Your task to perform on an android device: Search for the best-rated coffee table on Crate & Barrel Image 0: 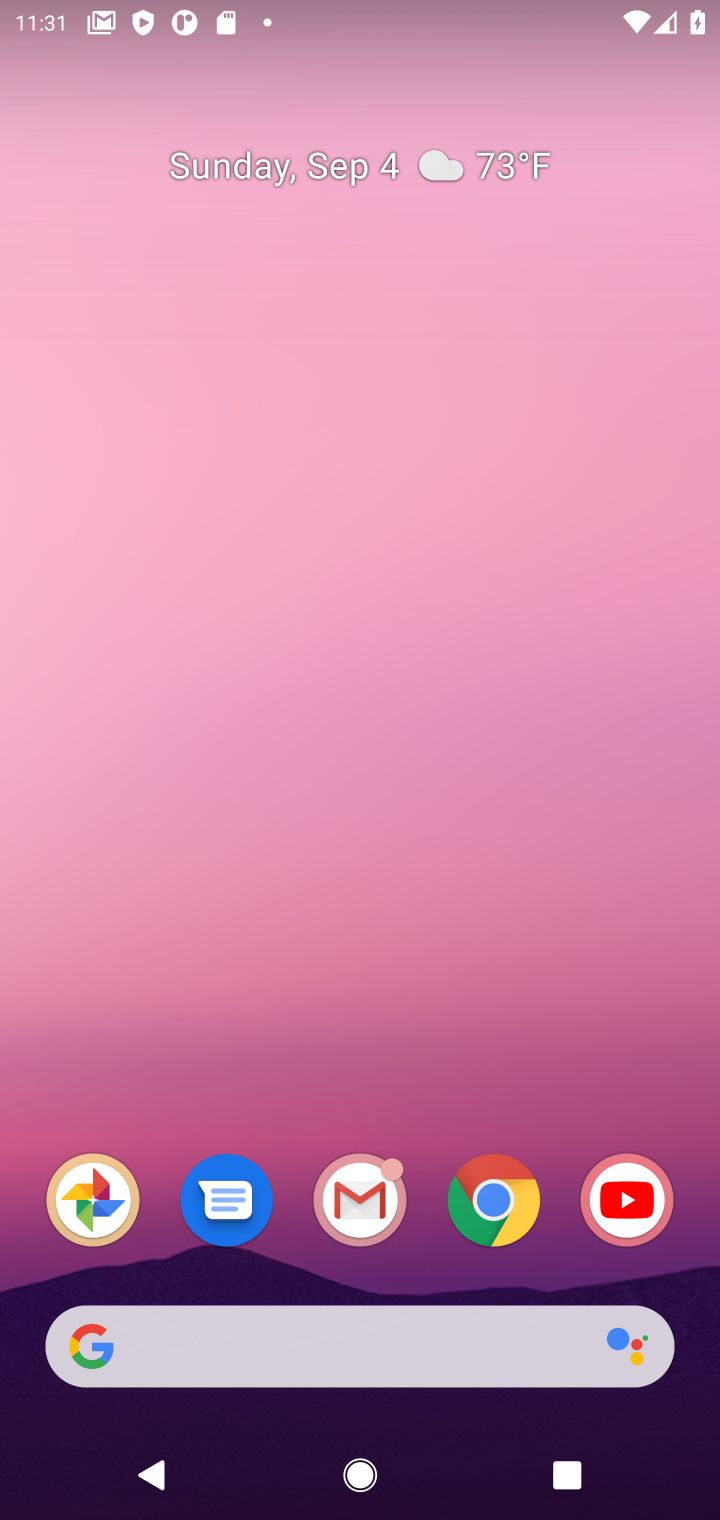
Step 0: click (496, 1180)
Your task to perform on an android device: Search for the best-rated coffee table on Crate & Barrel Image 1: 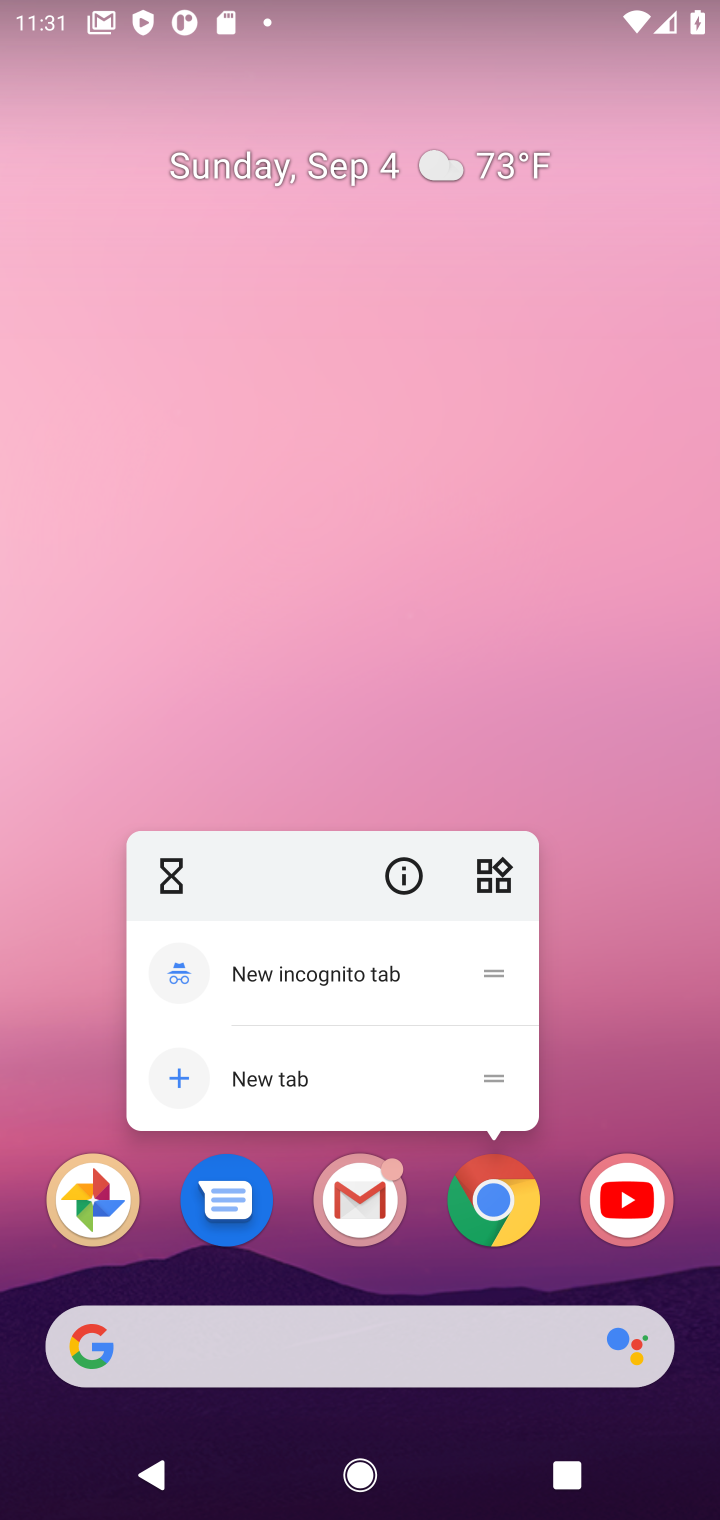
Step 1: click (501, 1220)
Your task to perform on an android device: Search for the best-rated coffee table on Crate & Barrel Image 2: 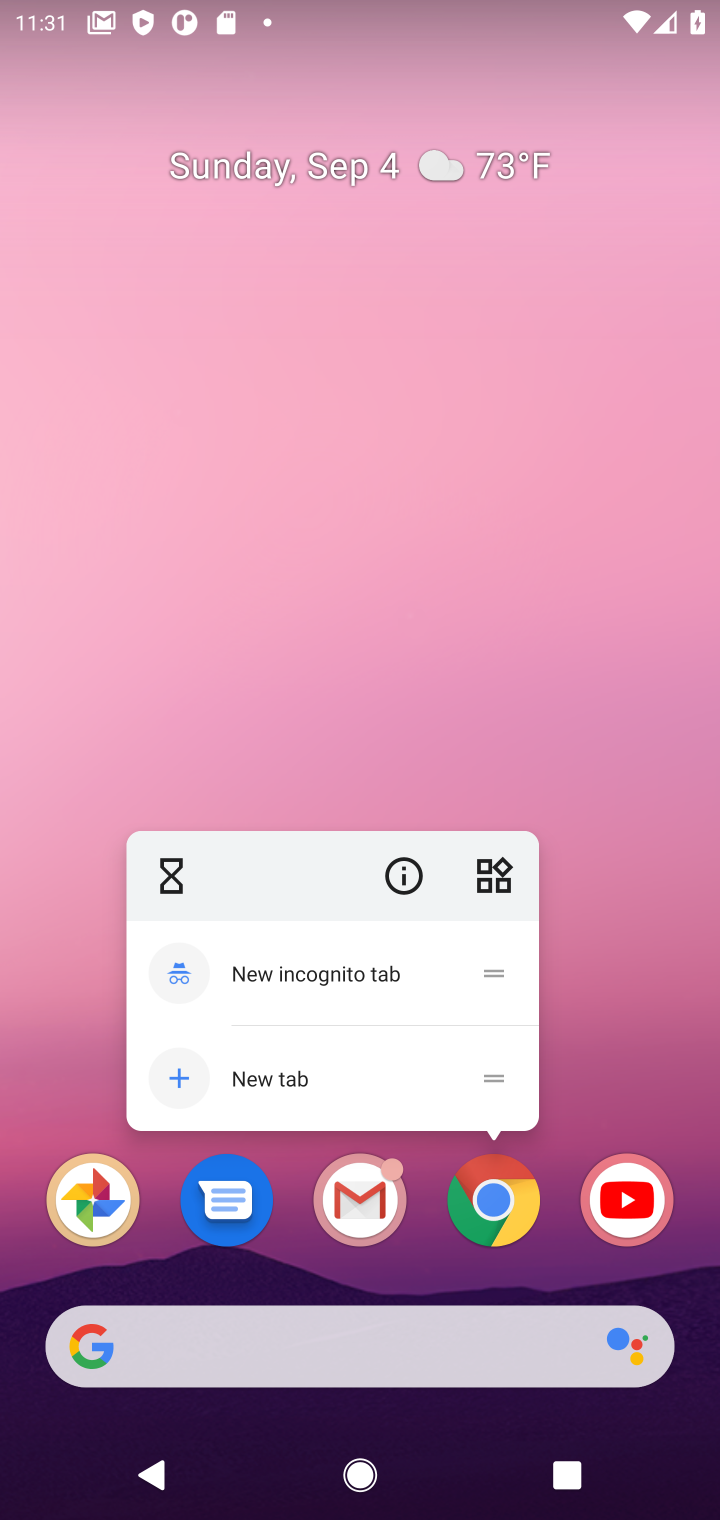
Step 2: click (505, 1245)
Your task to perform on an android device: Search for the best-rated coffee table on Crate & Barrel Image 3: 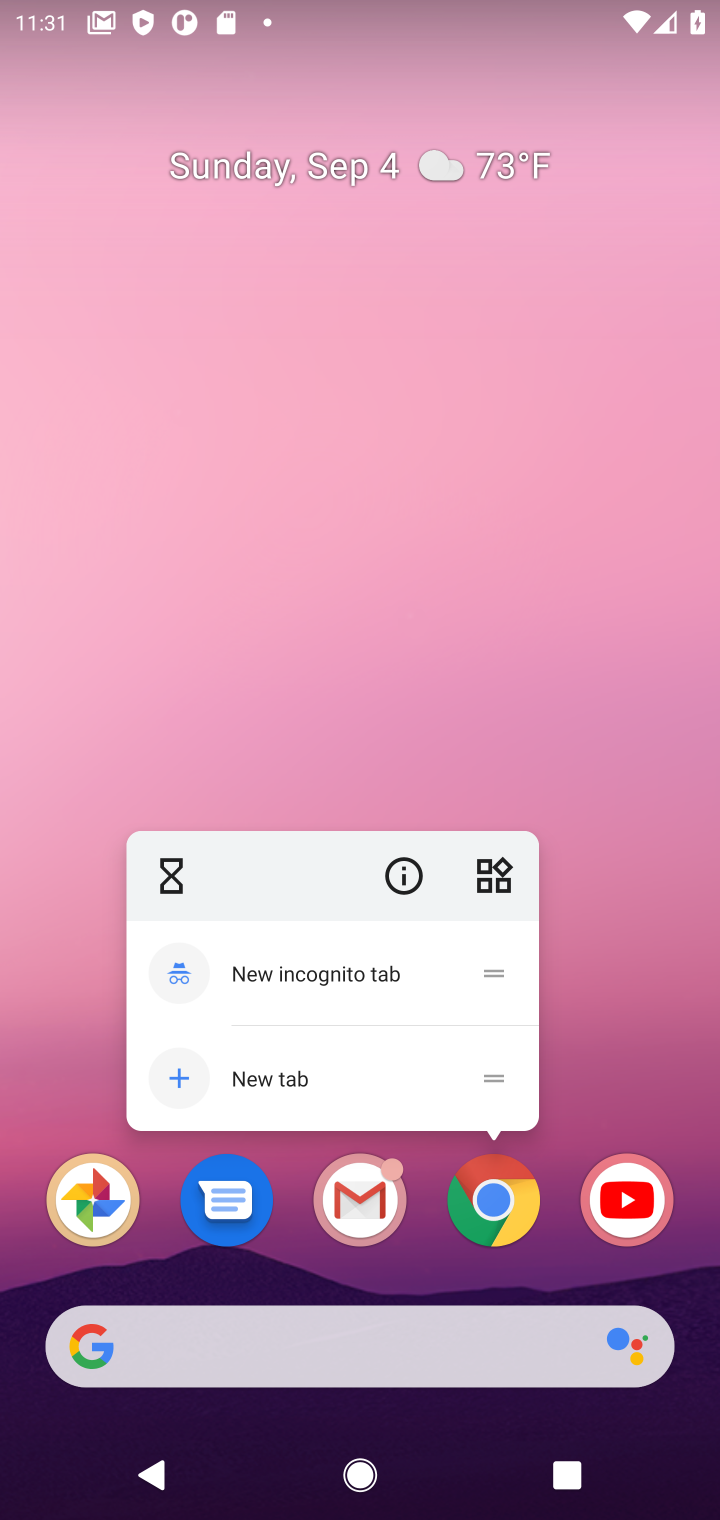
Step 3: click (488, 1175)
Your task to perform on an android device: Search for the best-rated coffee table on Crate & Barrel Image 4: 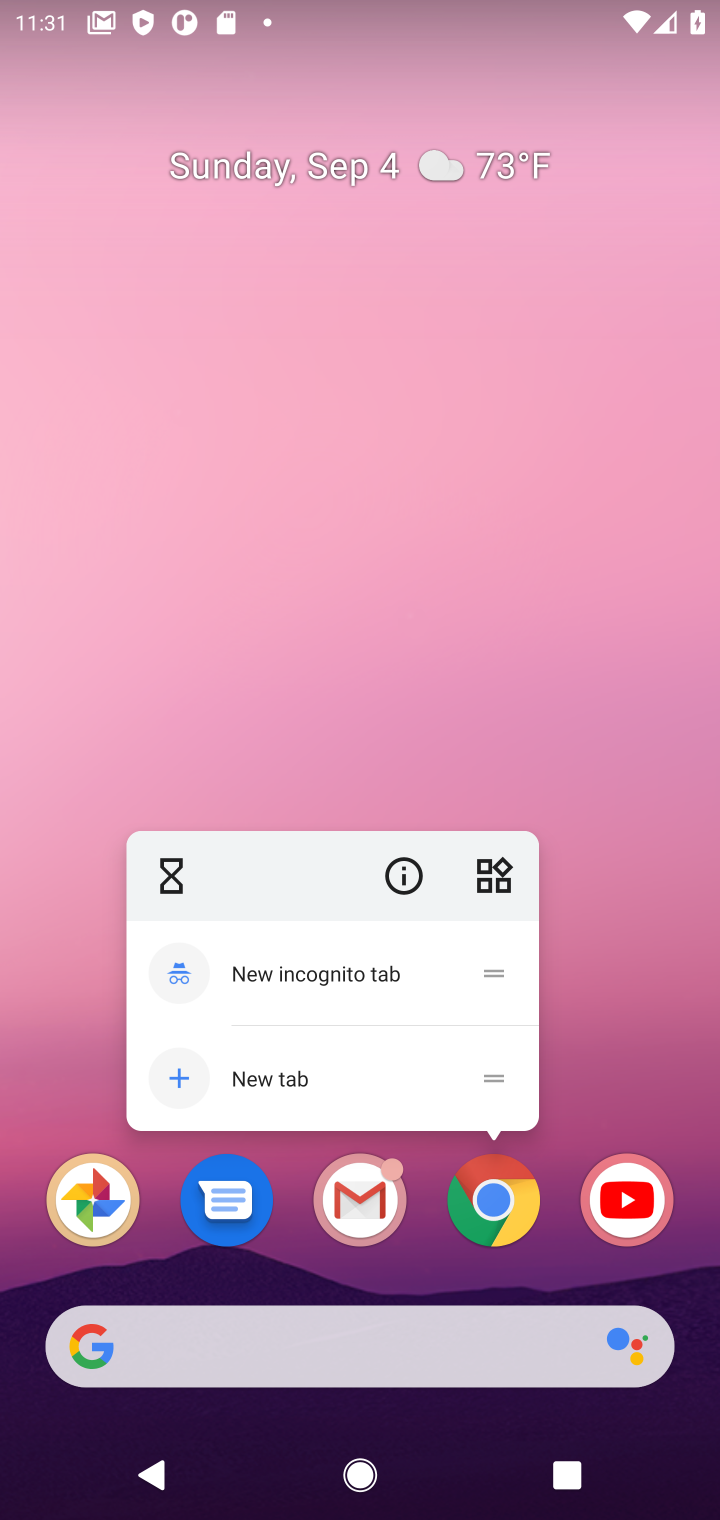
Step 4: click (490, 1191)
Your task to perform on an android device: Search for the best-rated coffee table on Crate & Barrel Image 5: 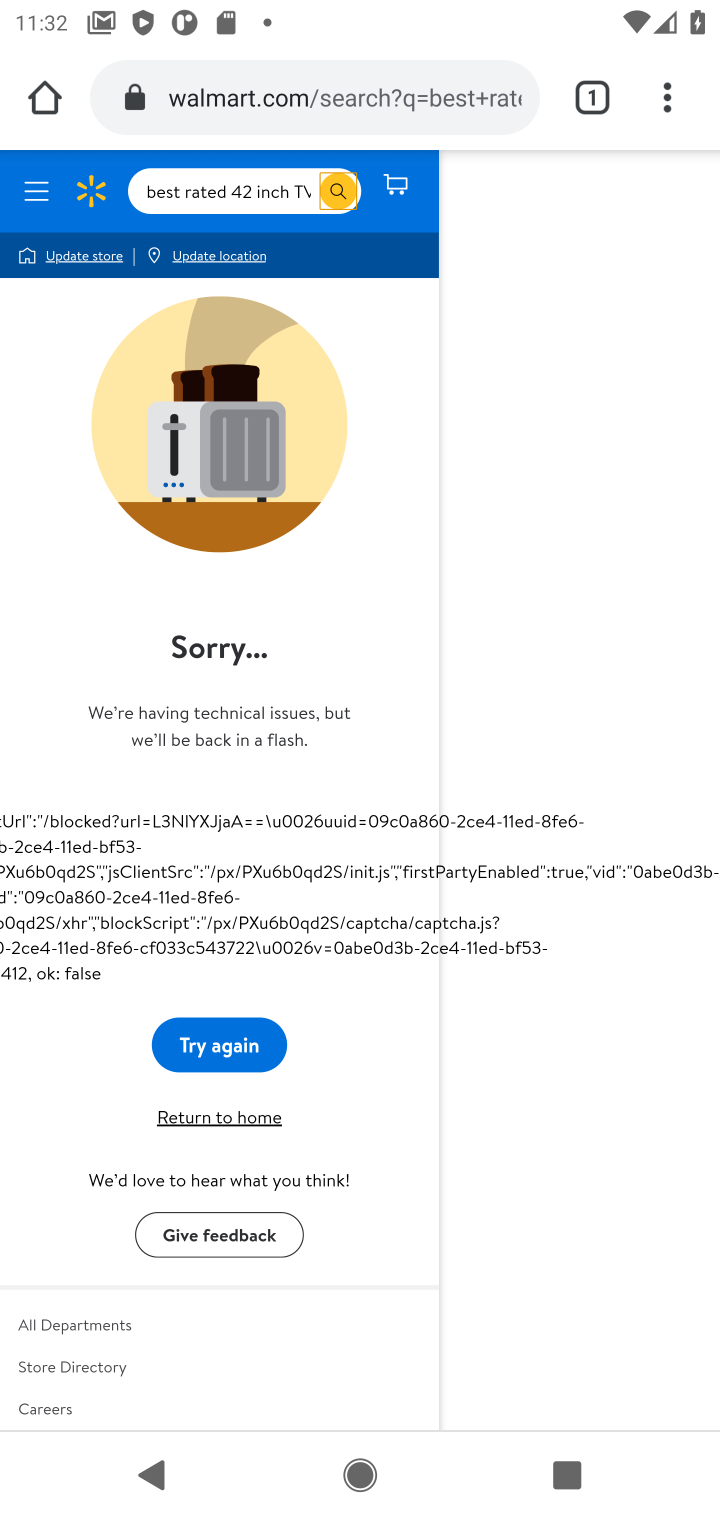
Step 5: click (419, 116)
Your task to perform on an android device: Search for the best-rated coffee table on Crate & Barrel Image 6: 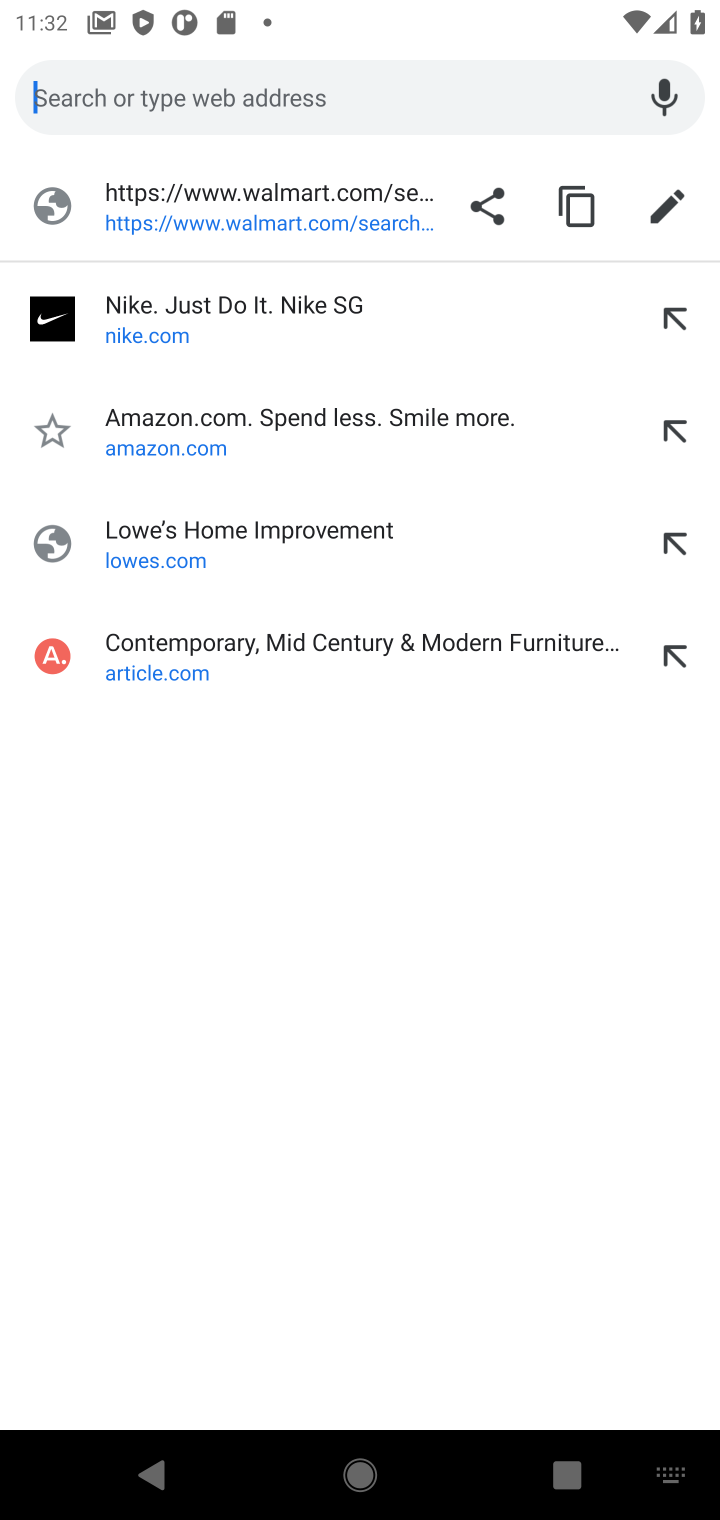
Step 6: type "crate and barrel"
Your task to perform on an android device: Search for the best-rated coffee table on Crate & Barrel Image 7: 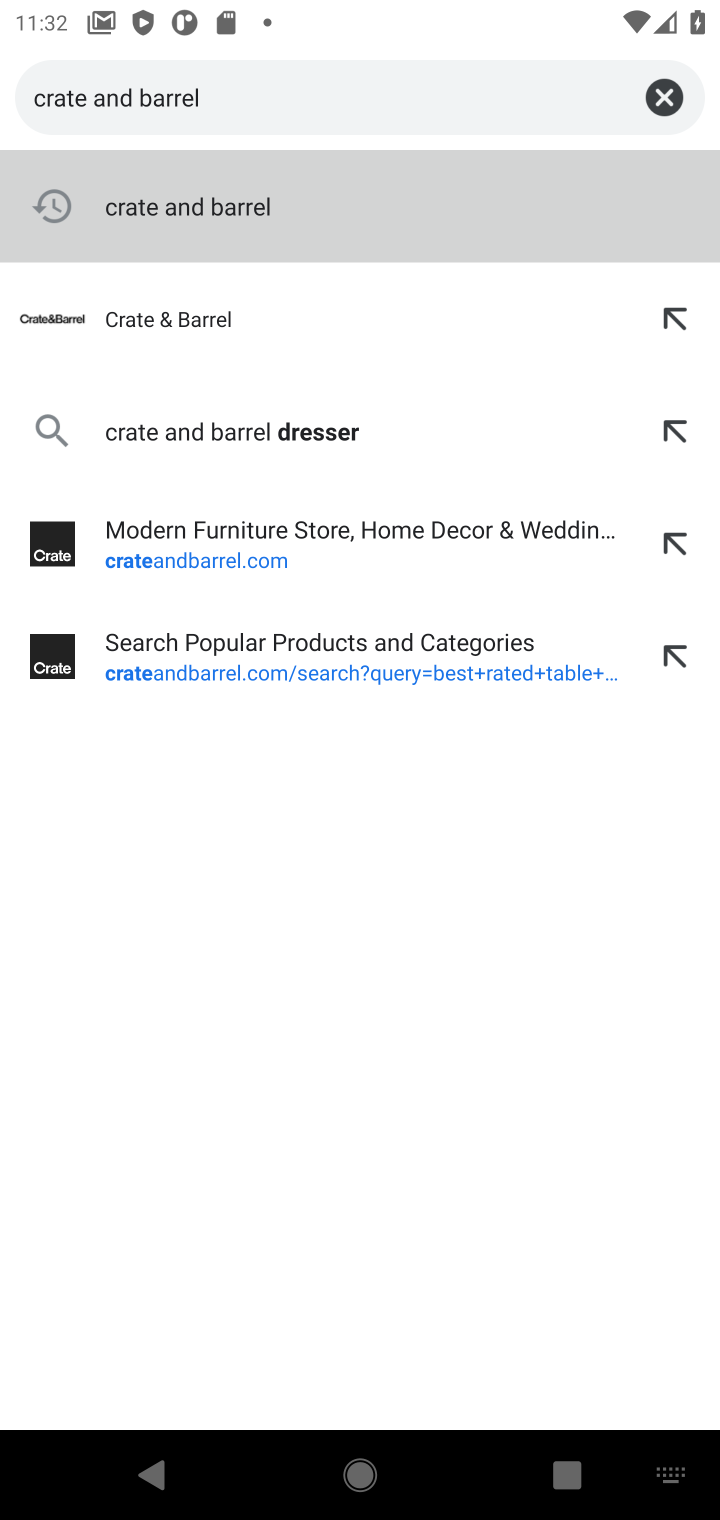
Step 7: click (341, 327)
Your task to perform on an android device: Search for the best-rated coffee table on Crate & Barrel Image 8: 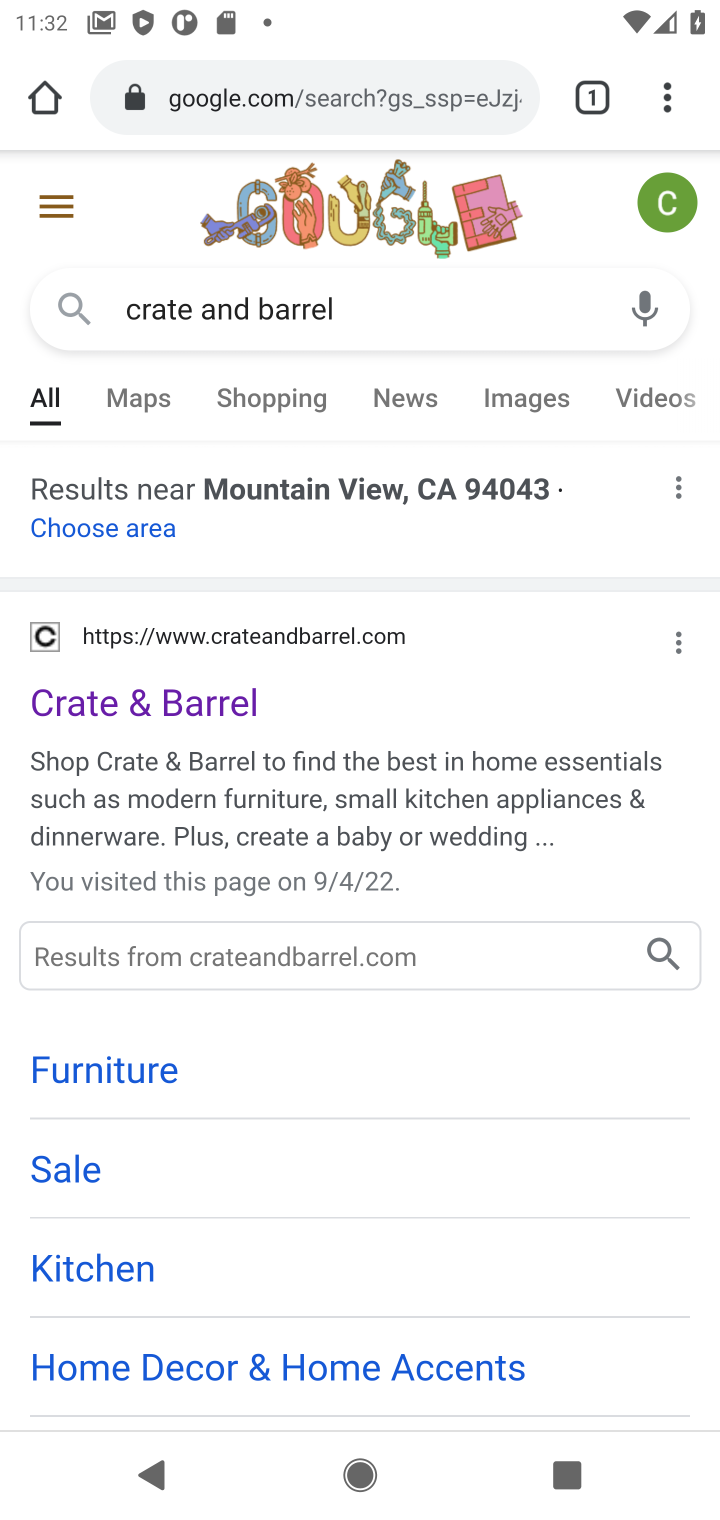
Step 8: click (185, 710)
Your task to perform on an android device: Search for the best-rated coffee table on Crate & Barrel Image 9: 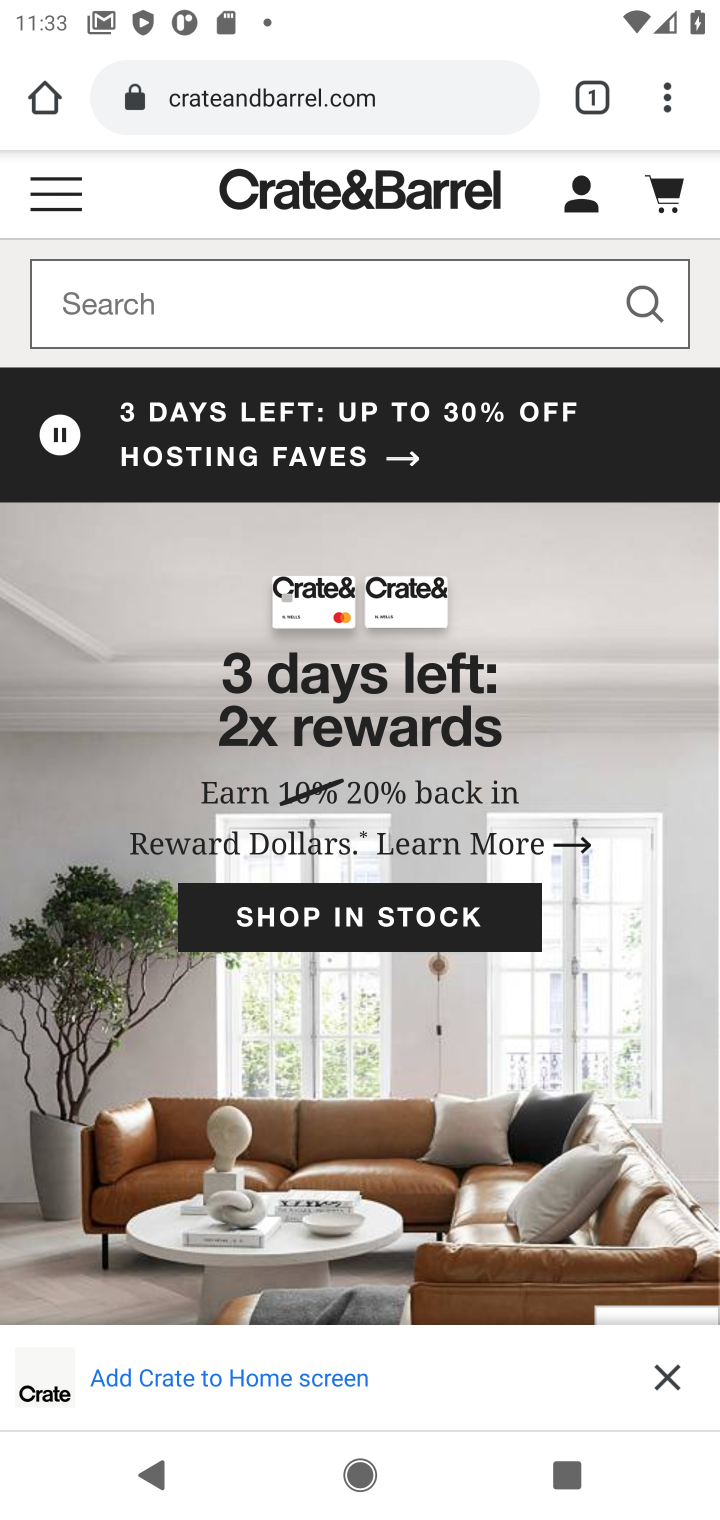
Step 9: click (601, 285)
Your task to perform on an android device: Search for the best-rated coffee table on Crate & Barrel Image 10: 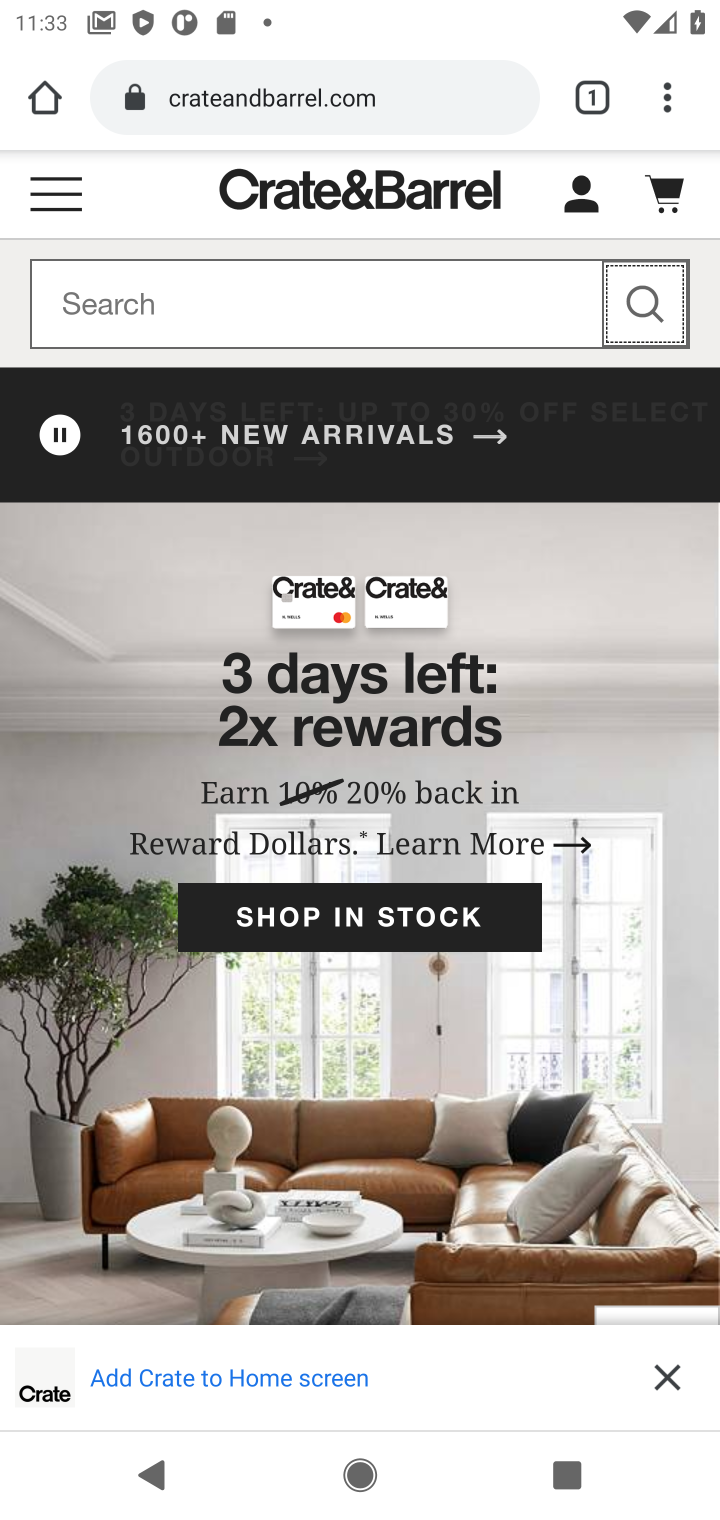
Step 10: click (235, 322)
Your task to perform on an android device: Search for the best-rated coffee table on Crate & Barrel Image 11: 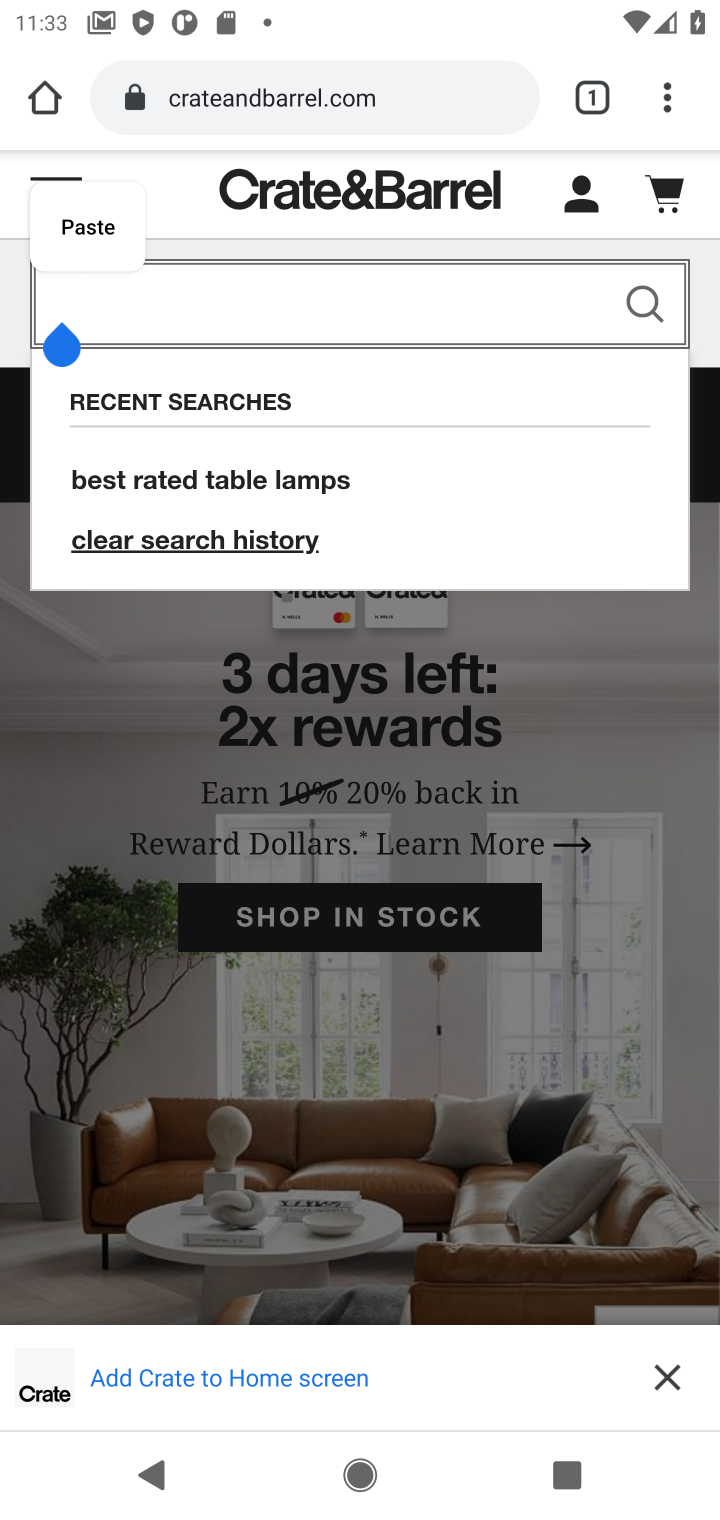
Step 11: type "best rated coffee table"
Your task to perform on an android device: Search for the best-rated coffee table on Crate & Barrel Image 12: 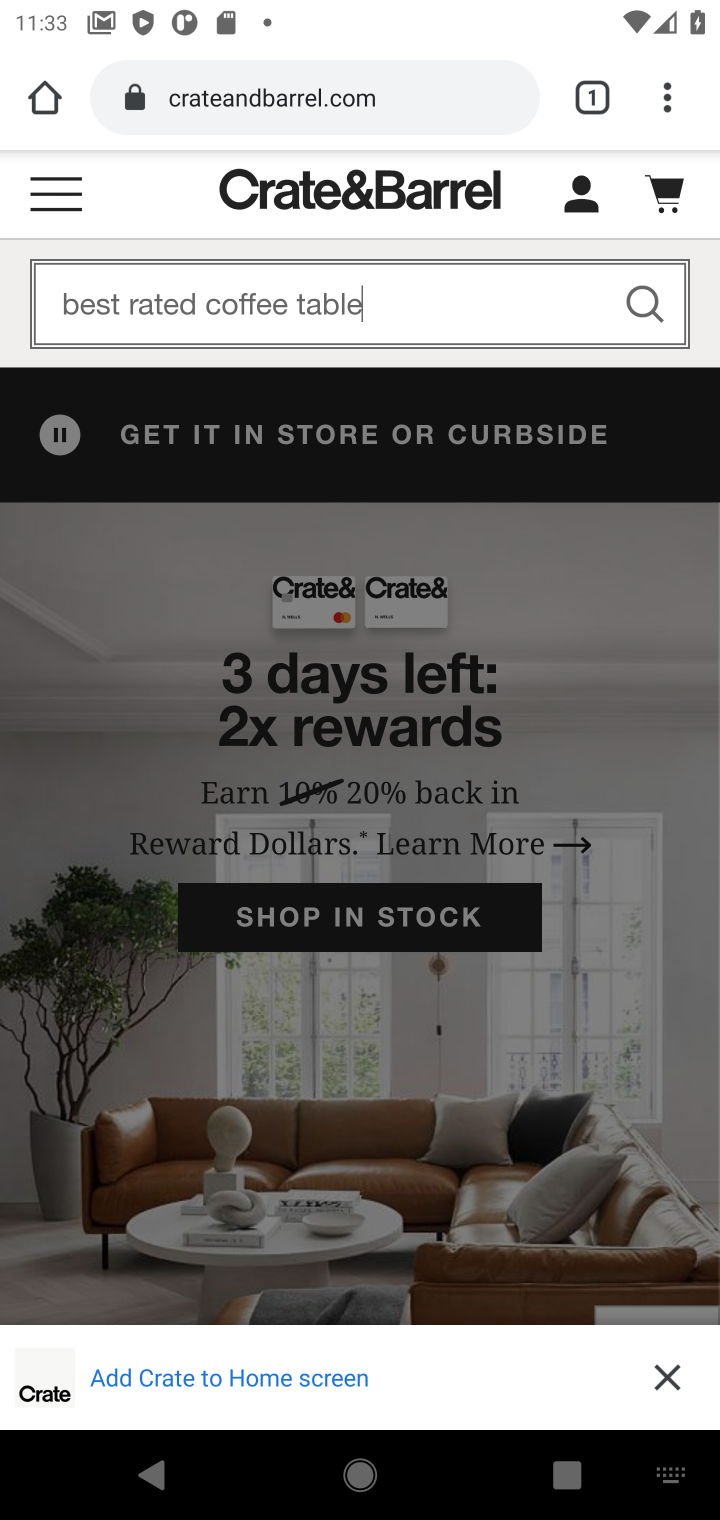
Step 12: click (627, 304)
Your task to perform on an android device: Search for the best-rated coffee table on Crate & Barrel Image 13: 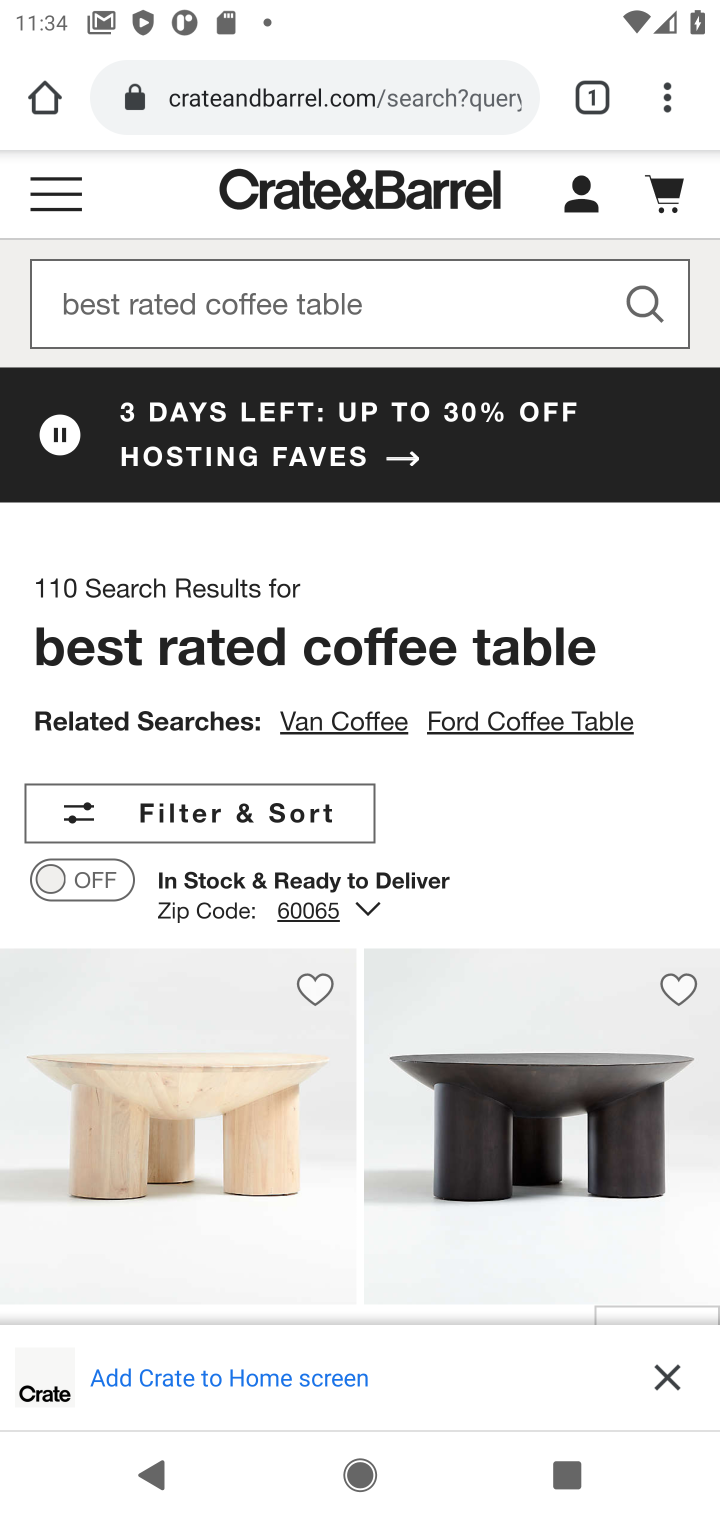
Step 13: task complete